Your task to perform on an android device: Go to wifi settings Image 0: 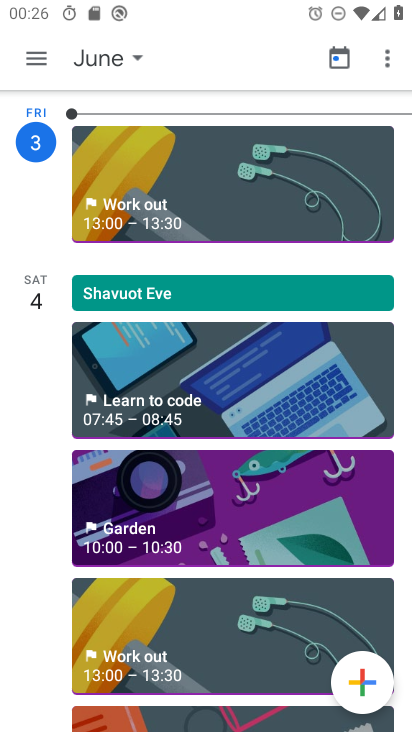
Step 0: press home button
Your task to perform on an android device: Go to wifi settings Image 1: 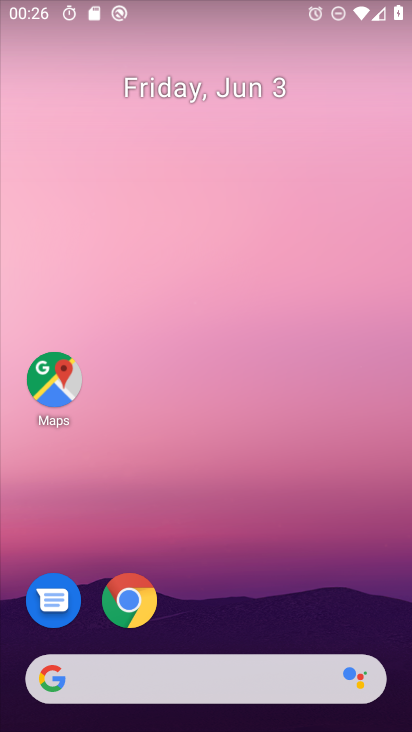
Step 1: drag from (222, 545) to (217, 86)
Your task to perform on an android device: Go to wifi settings Image 2: 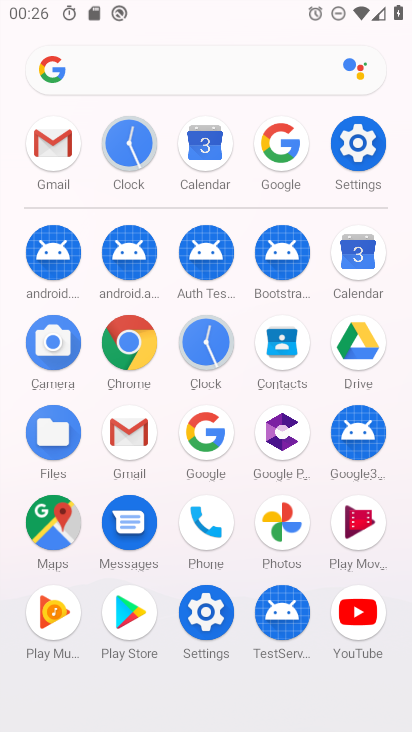
Step 2: click (359, 149)
Your task to perform on an android device: Go to wifi settings Image 3: 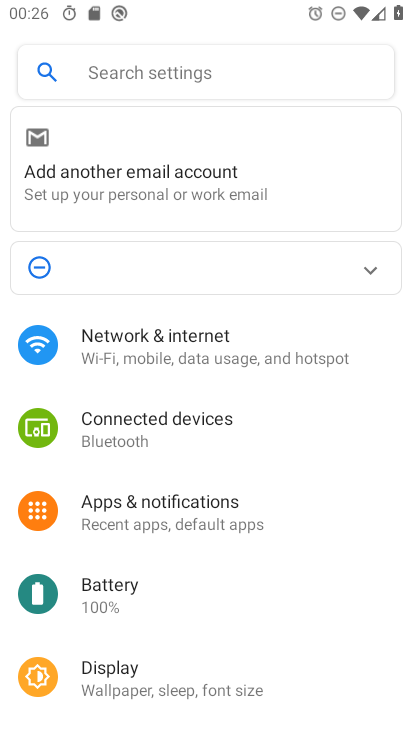
Step 3: click (145, 338)
Your task to perform on an android device: Go to wifi settings Image 4: 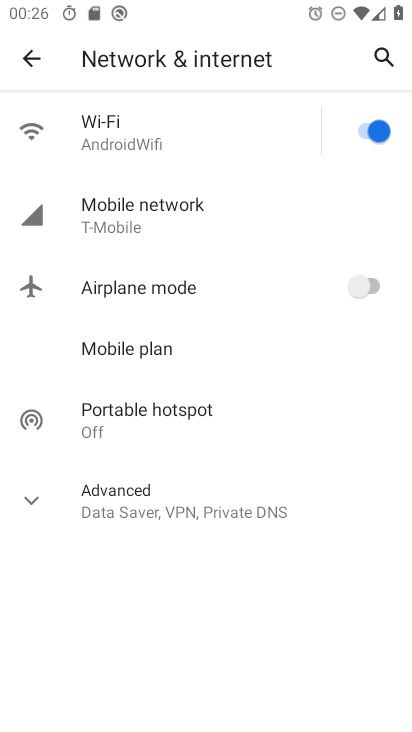
Step 4: click (159, 126)
Your task to perform on an android device: Go to wifi settings Image 5: 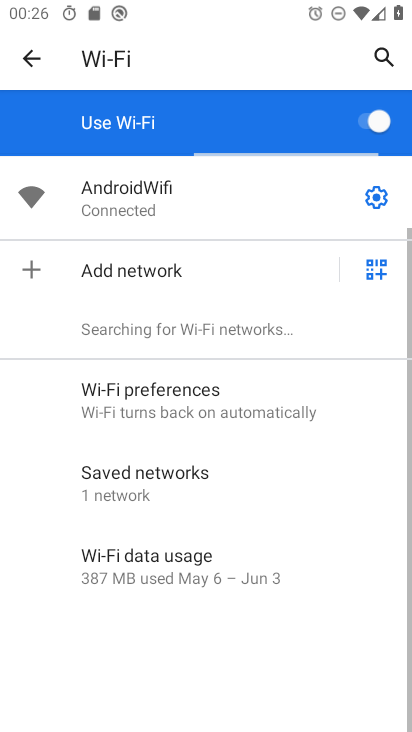
Step 5: click (167, 214)
Your task to perform on an android device: Go to wifi settings Image 6: 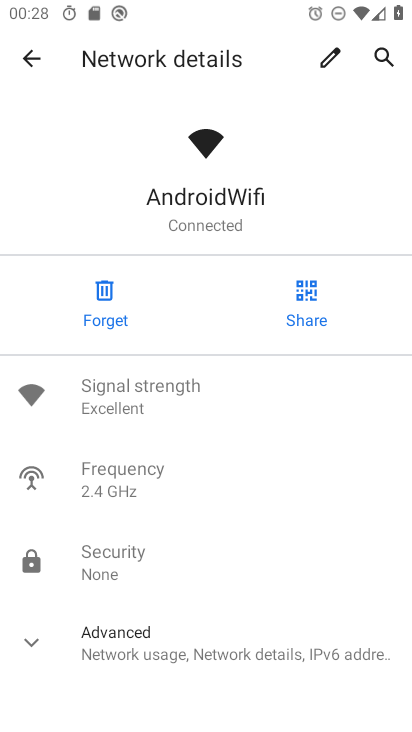
Step 6: task complete